Your task to perform on an android device: Show me popular videos on Youtube Image 0: 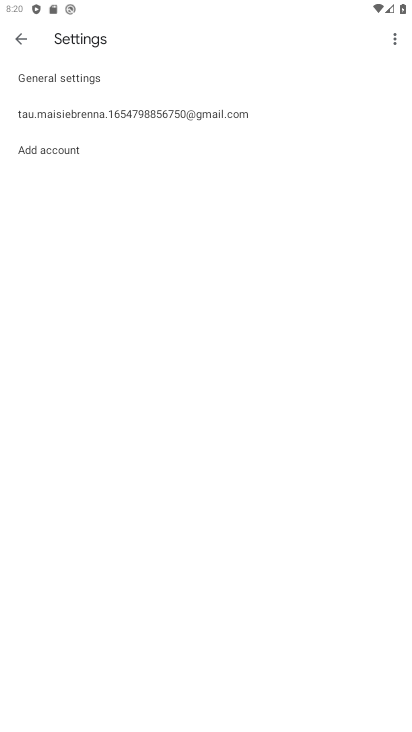
Step 0: drag from (167, 506) to (216, 308)
Your task to perform on an android device: Show me popular videos on Youtube Image 1: 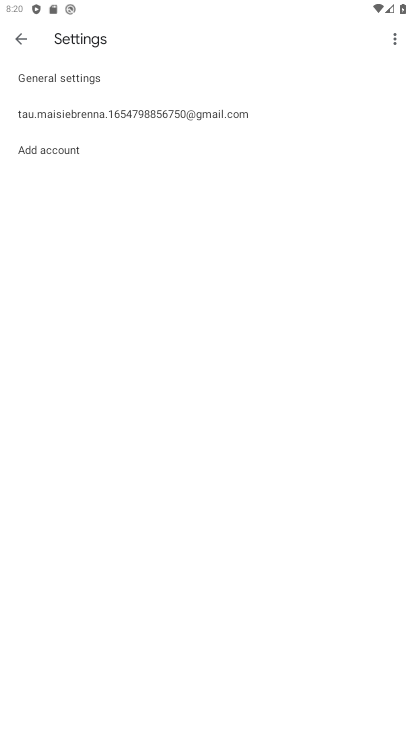
Step 1: press home button
Your task to perform on an android device: Show me popular videos on Youtube Image 2: 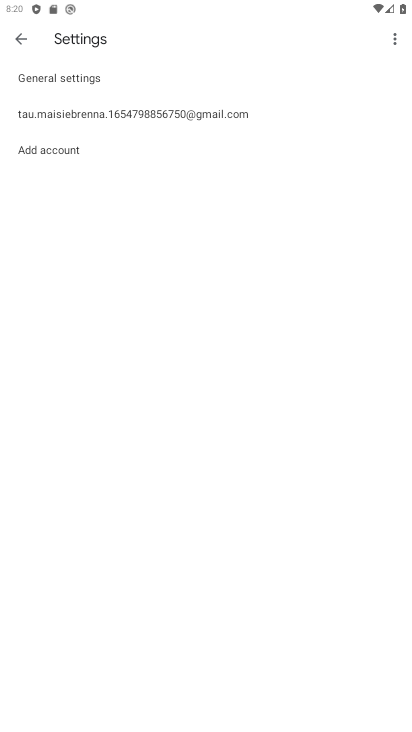
Step 2: drag from (216, 629) to (326, 119)
Your task to perform on an android device: Show me popular videos on Youtube Image 3: 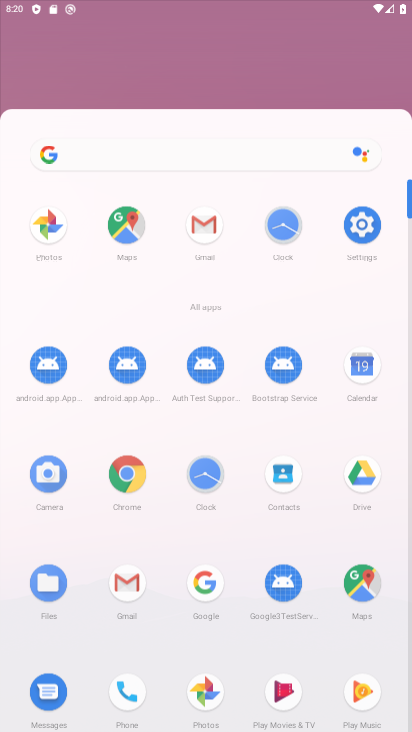
Step 3: drag from (213, 191) to (213, 137)
Your task to perform on an android device: Show me popular videos on Youtube Image 4: 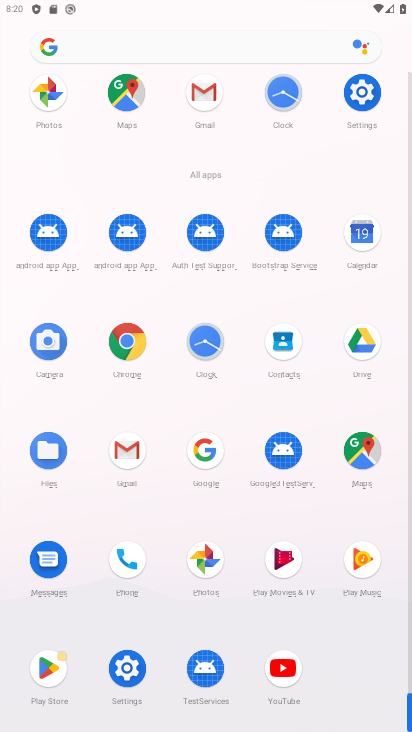
Step 4: click (274, 669)
Your task to perform on an android device: Show me popular videos on Youtube Image 5: 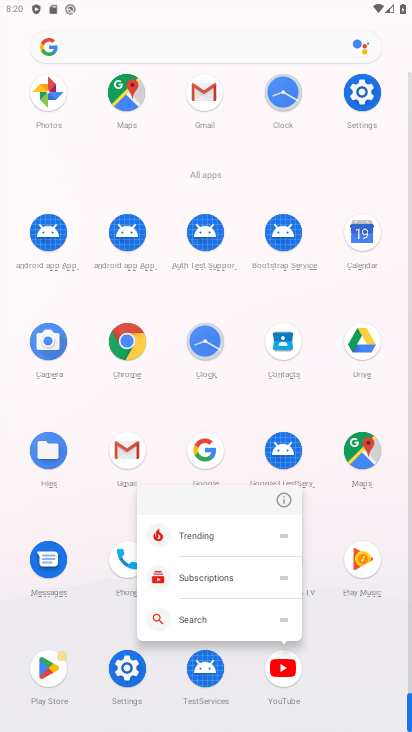
Step 5: click (293, 491)
Your task to perform on an android device: Show me popular videos on Youtube Image 6: 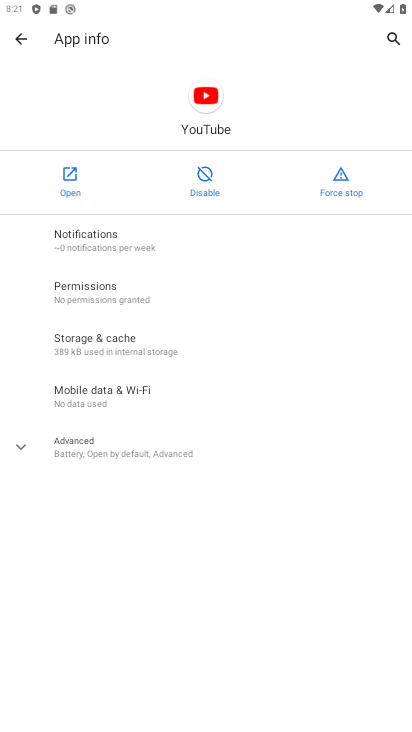
Step 6: click (89, 187)
Your task to perform on an android device: Show me popular videos on Youtube Image 7: 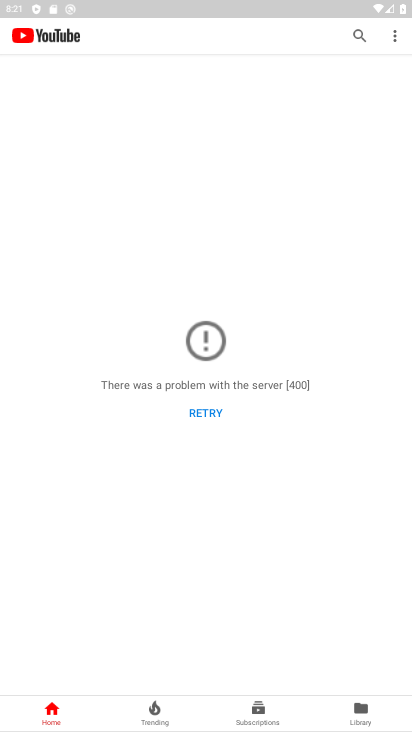
Step 7: click (269, 517)
Your task to perform on an android device: Show me popular videos on Youtube Image 8: 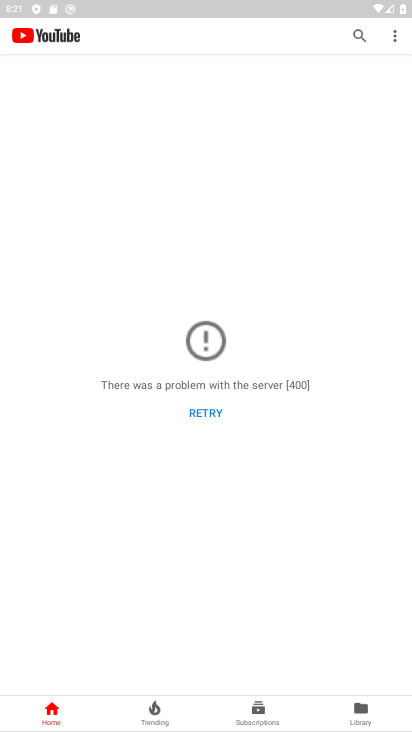
Step 8: task complete